Your task to perform on an android device: turn on airplane mode Image 0: 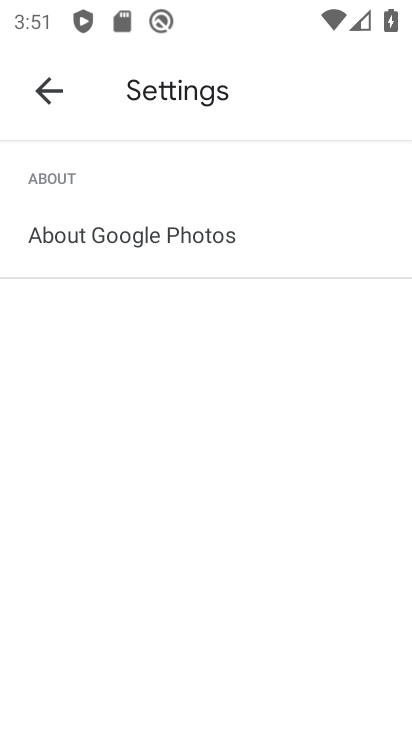
Step 0: drag from (304, 12) to (232, 560)
Your task to perform on an android device: turn on airplane mode Image 1: 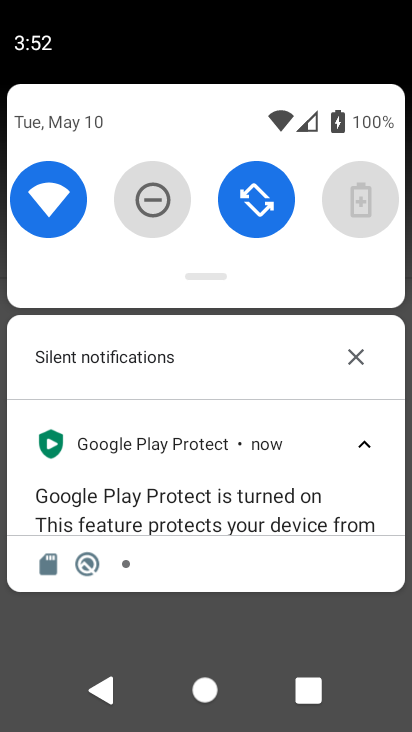
Step 1: drag from (211, 251) to (172, 614)
Your task to perform on an android device: turn on airplane mode Image 2: 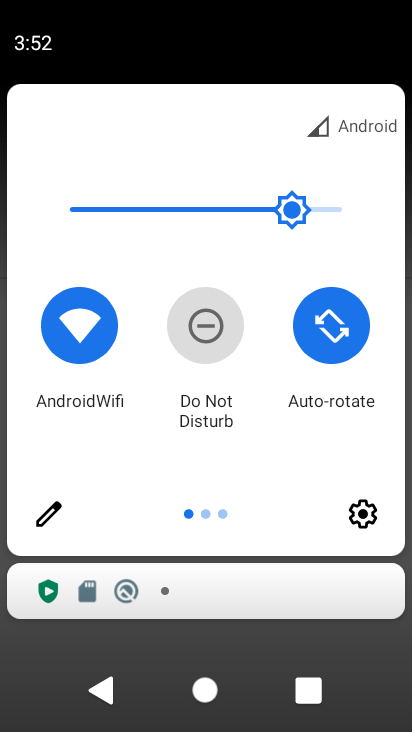
Step 2: drag from (363, 332) to (56, 273)
Your task to perform on an android device: turn on airplane mode Image 3: 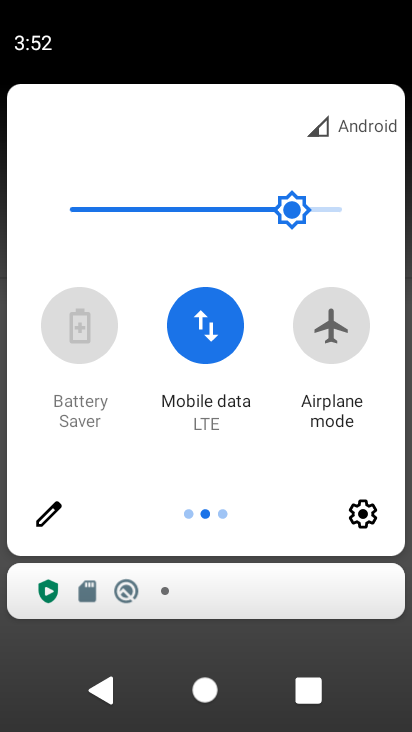
Step 3: click (318, 327)
Your task to perform on an android device: turn on airplane mode Image 4: 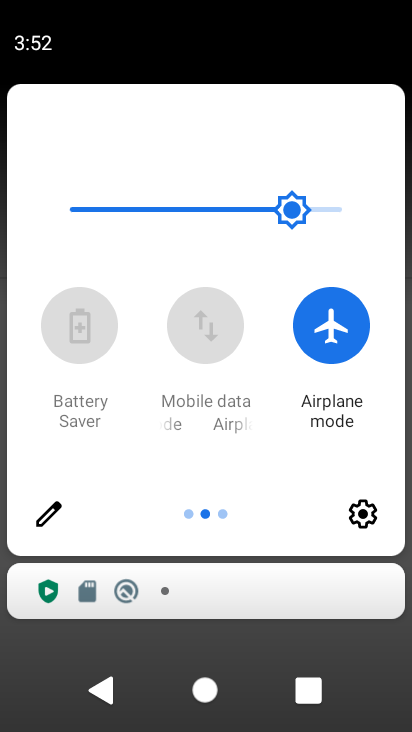
Step 4: task complete